Your task to perform on an android device: see creations saved in the google photos Image 0: 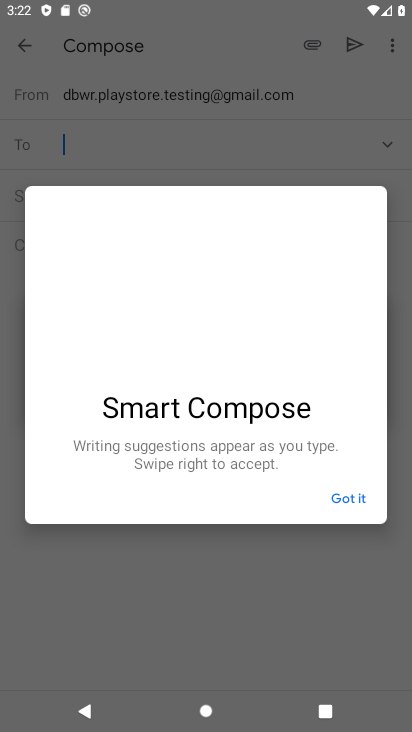
Step 0: press home button
Your task to perform on an android device: see creations saved in the google photos Image 1: 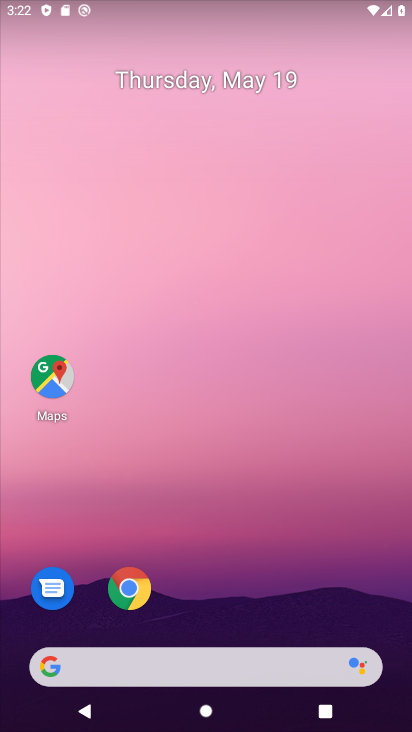
Step 1: drag from (215, 609) to (240, 262)
Your task to perform on an android device: see creations saved in the google photos Image 2: 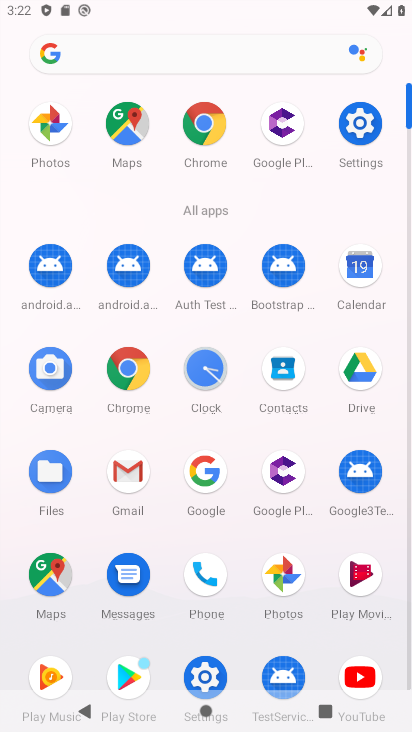
Step 2: drag from (239, 593) to (267, 407)
Your task to perform on an android device: see creations saved in the google photos Image 3: 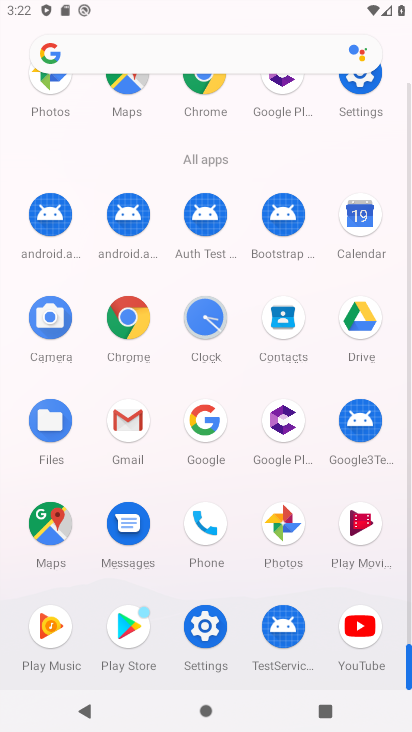
Step 3: click (286, 531)
Your task to perform on an android device: see creations saved in the google photos Image 4: 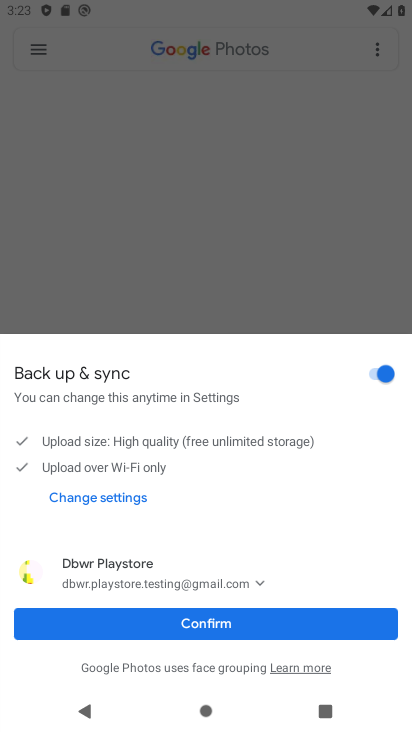
Step 4: click (268, 623)
Your task to perform on an android device: see creations saved in the google photos Image 5: 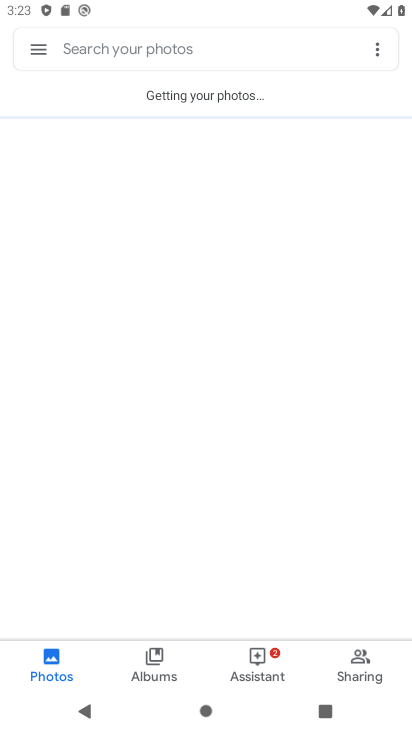
Step 5: click (190, 51)
Your task to perform on an android device: see creations saved in the google photos Image 6: 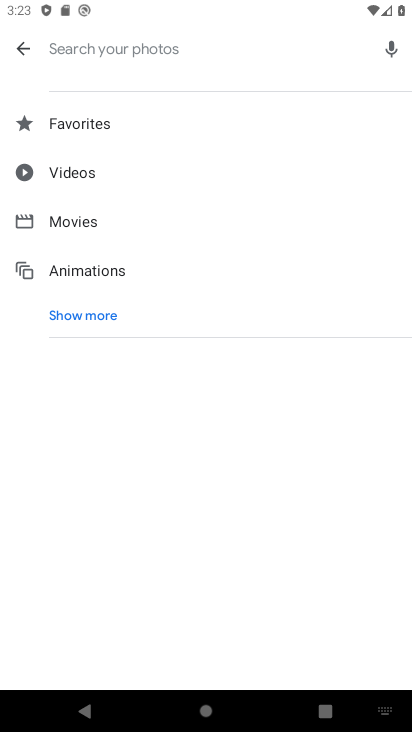
Step 6: type "creations"
Your task to perform on an android device: see creations saved in the google photos Image 7: 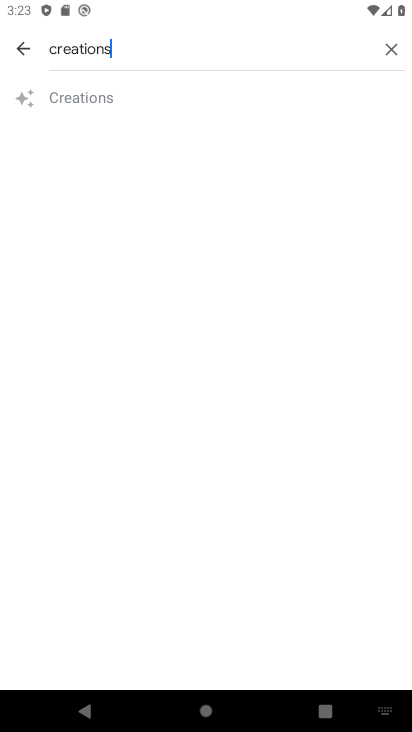
Step 7: click (69, 112)
Your task to perform on an android device: see creations saved in the google photos Image 8: 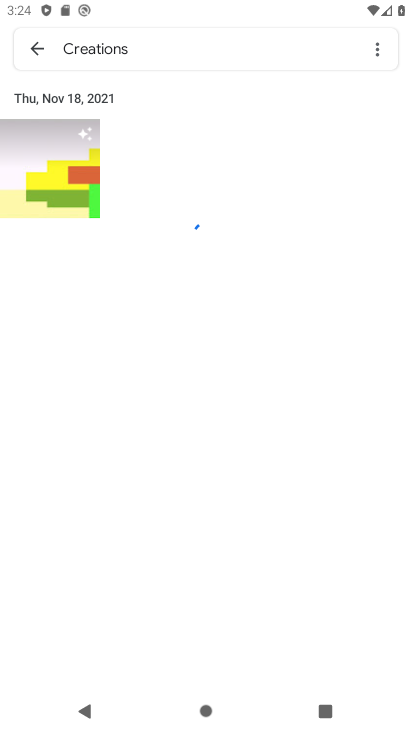
Step 8: task complete